Your task to perform on an android device: delete browsing data in the chrome app Image 0: 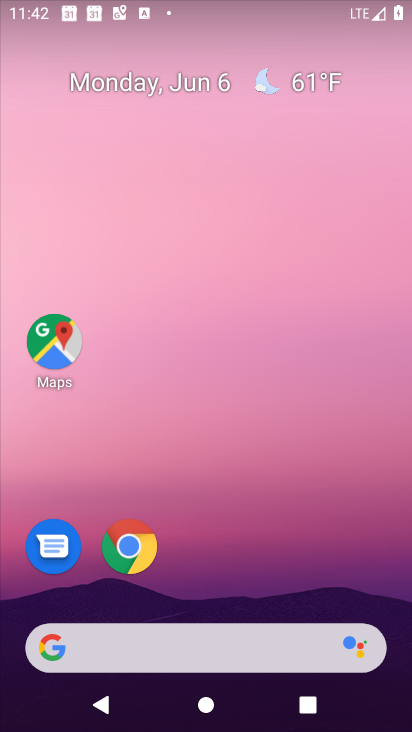
Step 0: click (131, 549)
Your task to perform on an android device: delete browsing data in the chrome app Image 1: 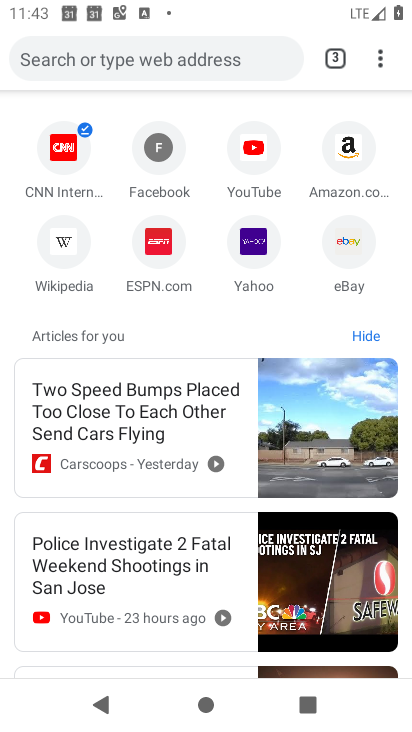
Step 1: click (377, 63)
Your task to perform on an android device: delete browsing data in the chrome app Image 2: 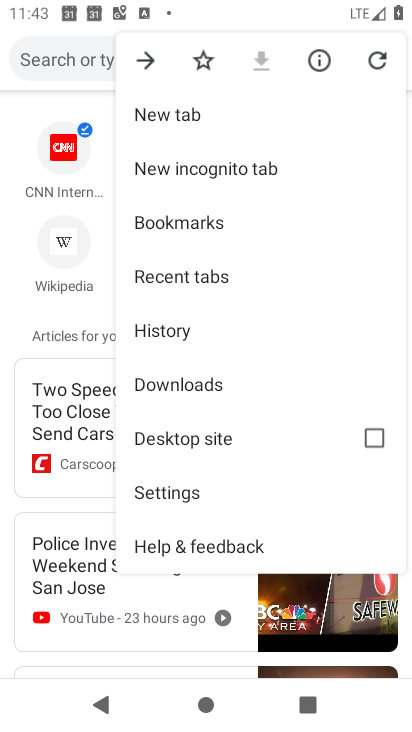
Step 2: click (170, 336)
Your task to perform on an android device: delete browsing data in the chrome app Image 3: 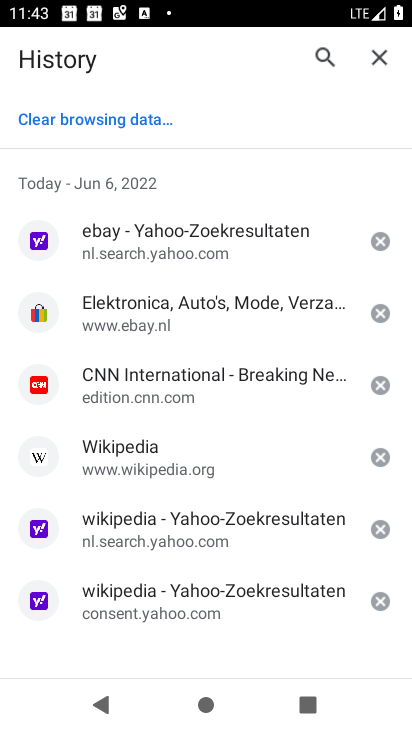
Step 3: click (112, 129)
Your task to perform on an android device: delete browsing data in the chrome app Image 4: 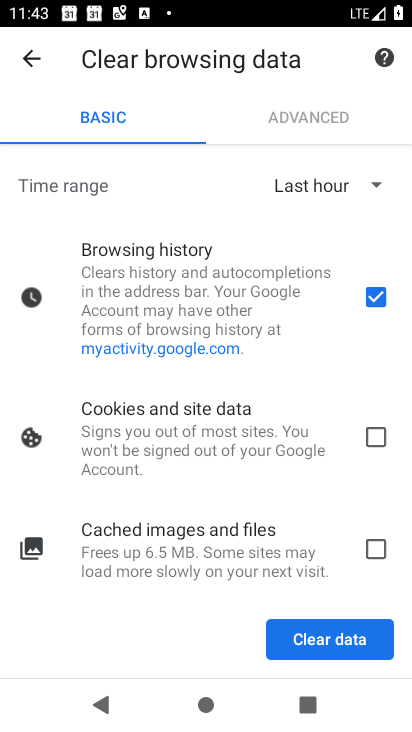
Step 4: click (334, 632)
Your task to perform on an android device: delete browsing data in the chrome app Image 5: 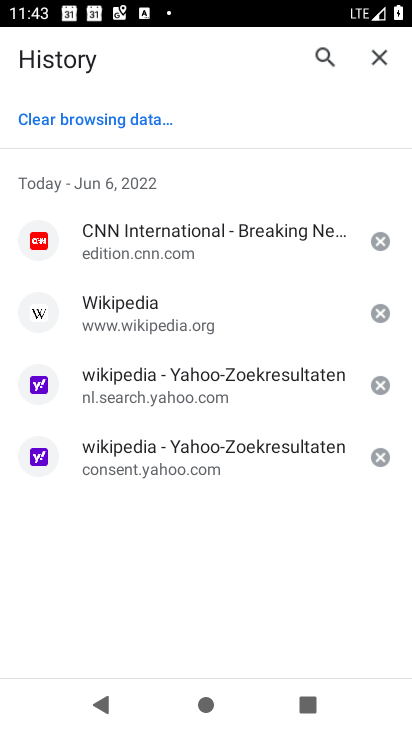
Step 5: task complete